Your task to perform on an android device: turn on bluetooth scan Image 0: 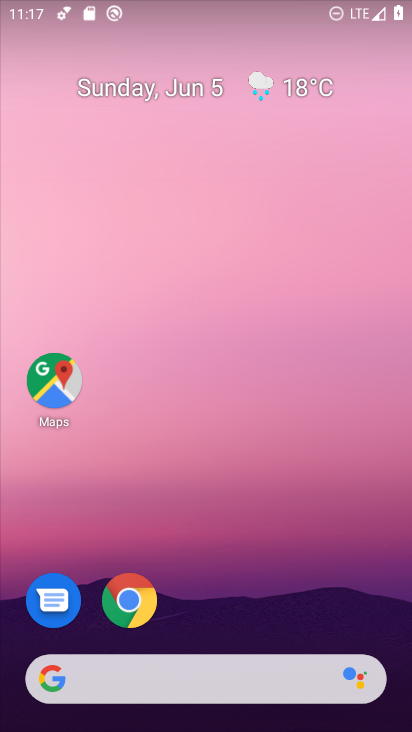
Step 0: drag from (207, 628) to (201, 183)
Your task to perform on an android device: turn on bluetooth scan Image 1: 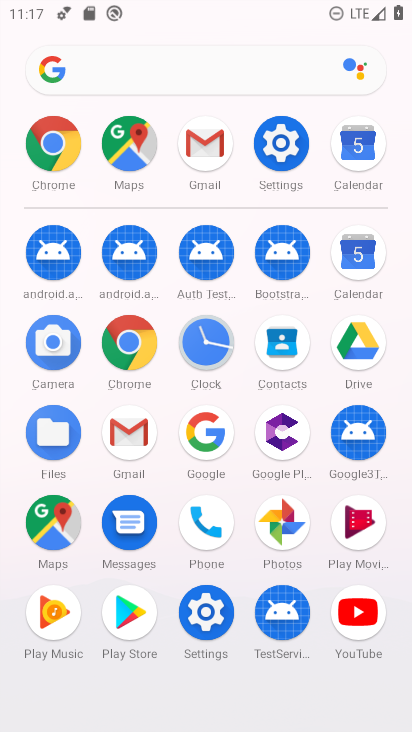
Step 1: click (279, 151)
Your task to perform on an android device: turn on bluetooth scan Image 2: 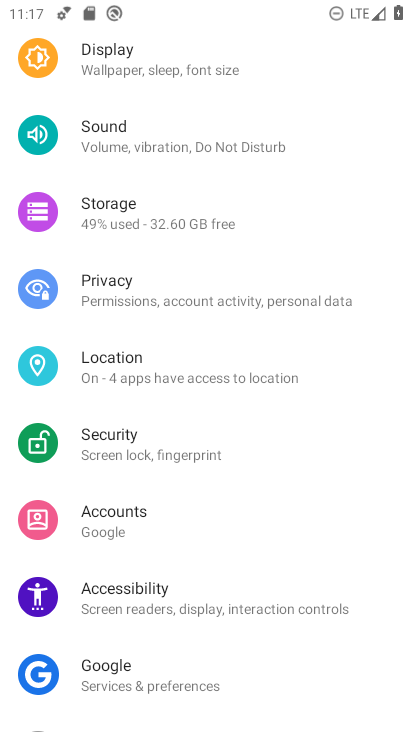
Step 2: drag from (212, 224) to (257, 503)
Your task to perform on an android device: turn on bluetooth scan Image 3: 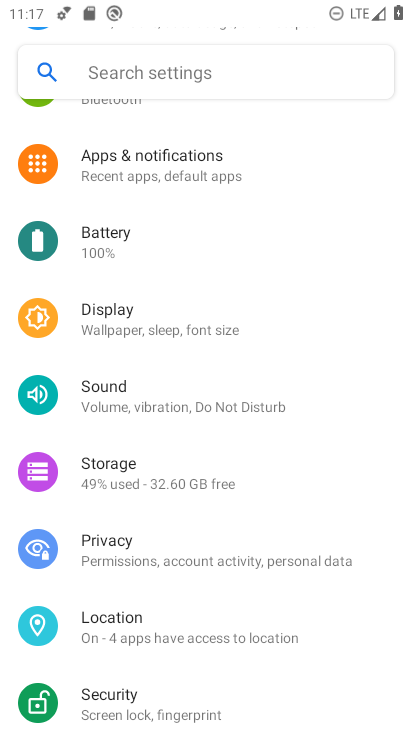
Step 3: click (168, 617)
Your task to perform on an android device: turn on bluetooth scan Image 4: 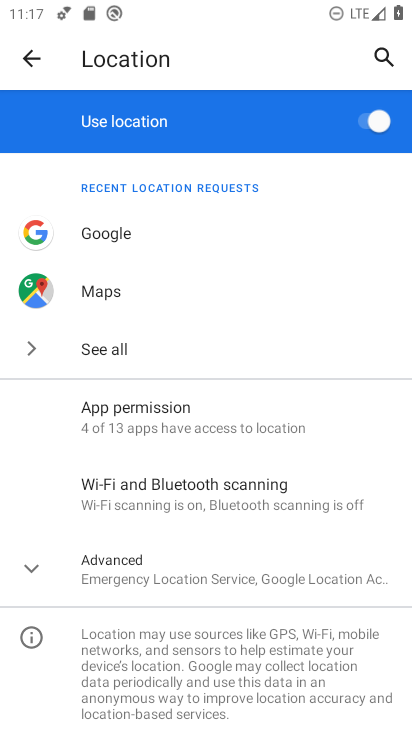
Step 4: click (248, 507)
Your task to perform on an android device: turn on bluetooth scan Image 5: 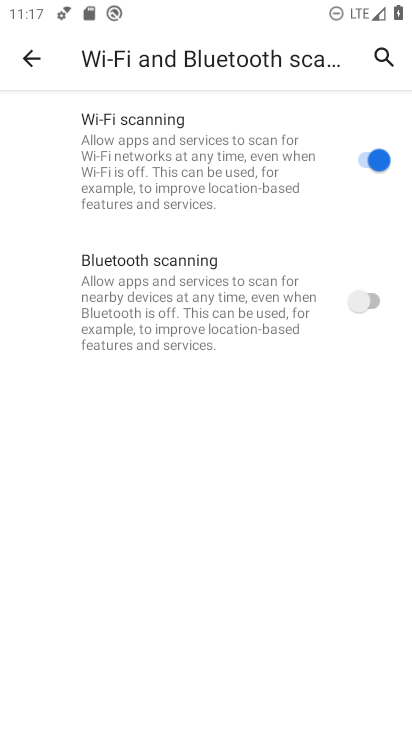
Step 5: click (364, 298)
Your task to perform on an android device: turn on bluetooth scan Image 6: 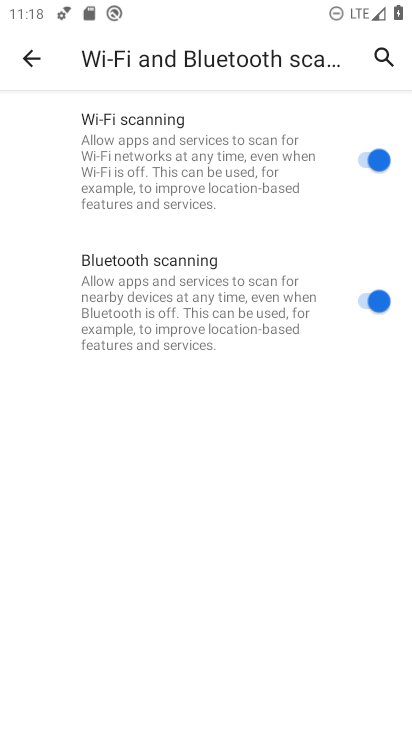
Step 6: task complete